Your task to perform on an android device: Open Yahoo.com Image 0: 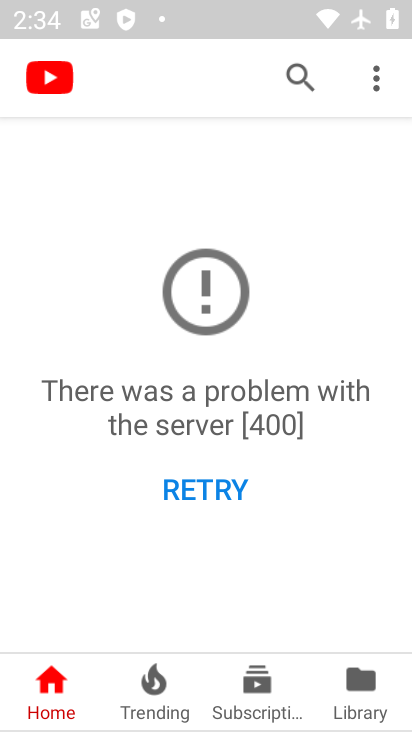
Step 0: press home button
Your task to perform on an android device: Open Yahoo.com Image 1: 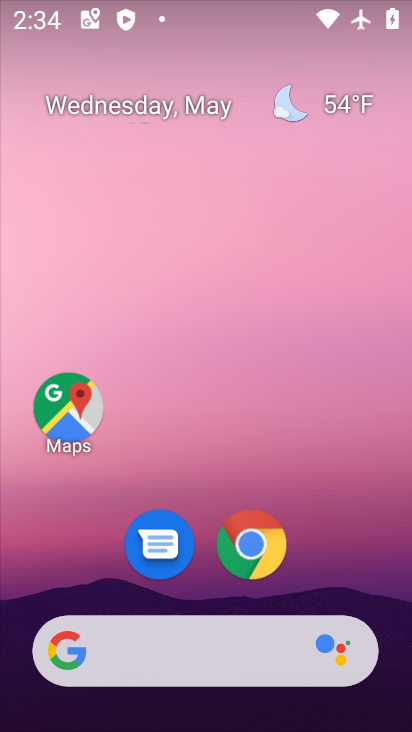
Step 1: click (248, 566)
Your task to perform on an android device: Open Yahoo.com Image 2: 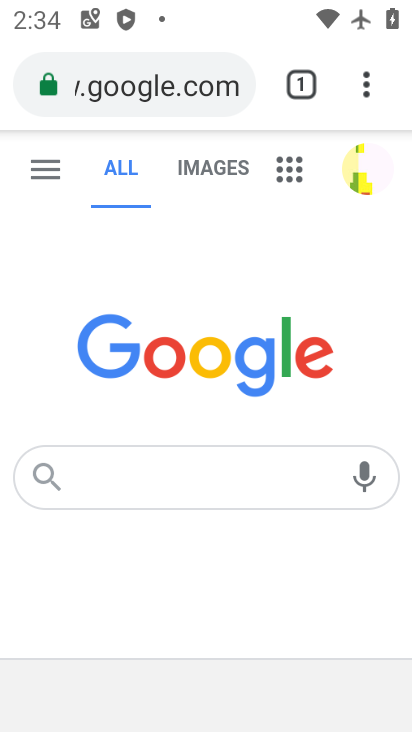
Step 2: click (202, 81)
Your task to perform on an android device: Open Yahoo.com Image 3: 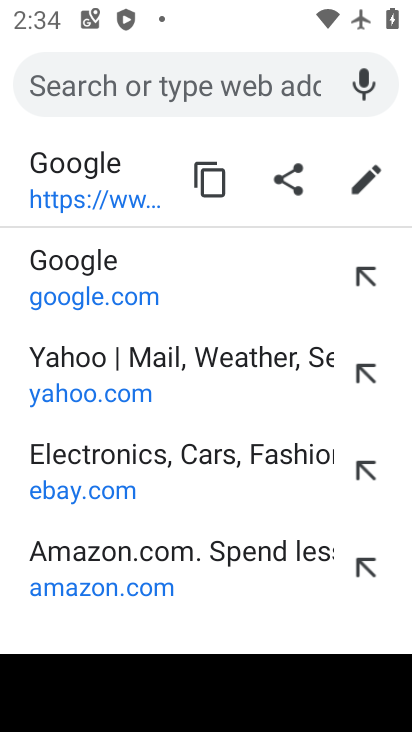
Step 3: click (257, 361)
Your task to perform on an android device: Open Yahoo.com Image 4: 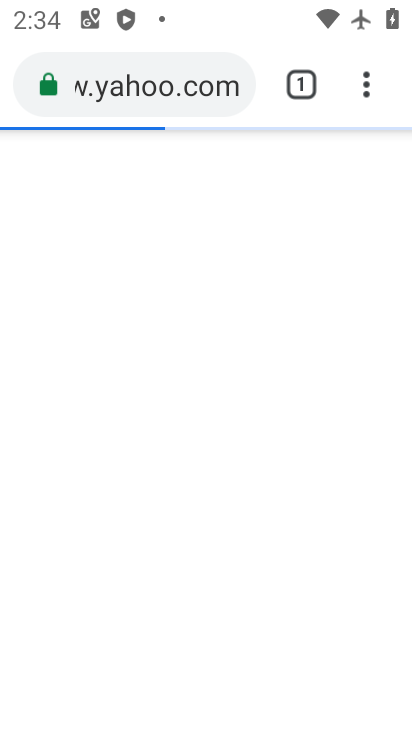
Step 4: task complete